Your task to perform on an android device: turn on location history Image 0: 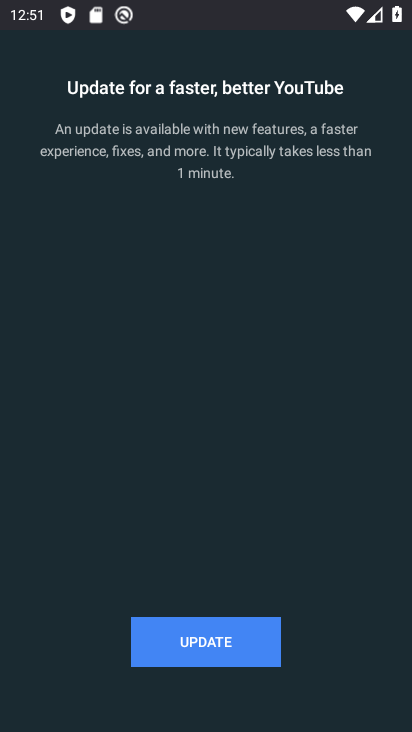
Step 0: press home button
Your task to perform on an android device: turn on location history Image 1: 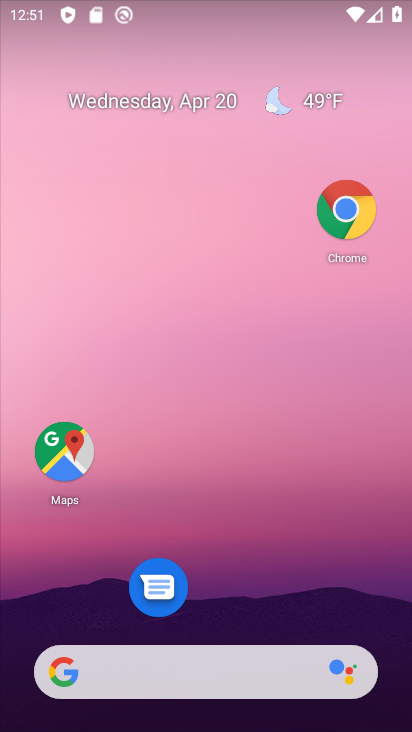
Step 1: drag from (224, 473) to (307, 0)
Your task to perform on an android device: turn on location history Image 2: 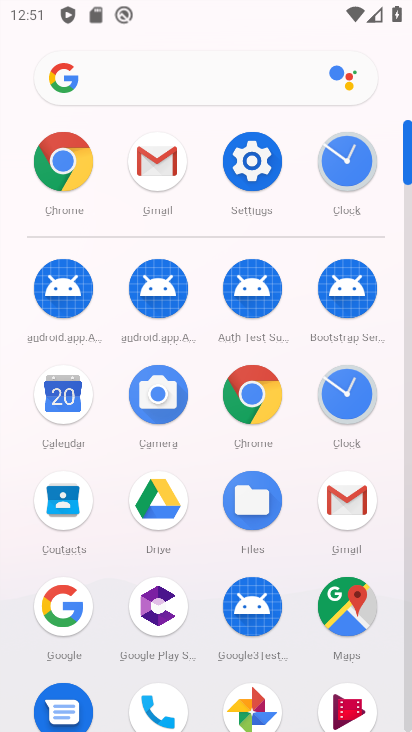
Step 2: click (264, 170)
Your task to perform on an android device: turn on location history Image 3: 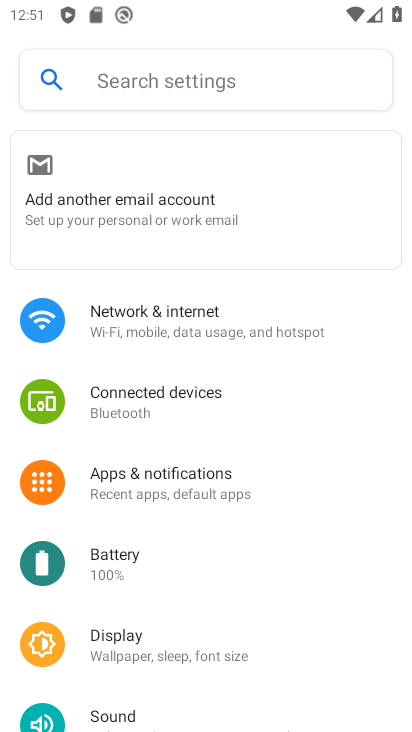
Step 3: drag from (167, 657) to (227, 272)
Your task to perform on an android device: turn on location history Image 4: 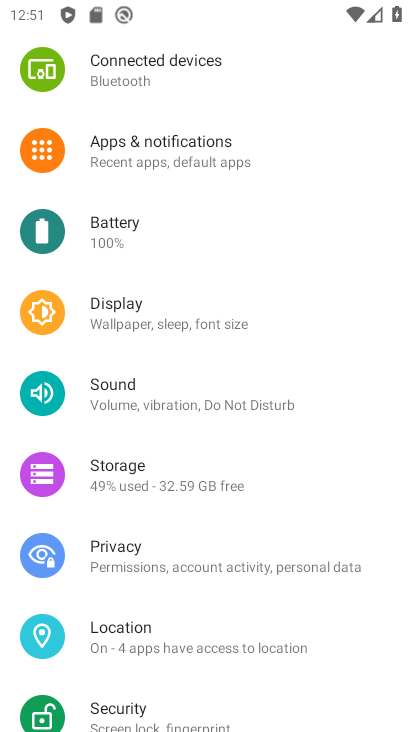
Step 4: click (128, 635)
Your task to perform on an android device: turn on location history Image 5: 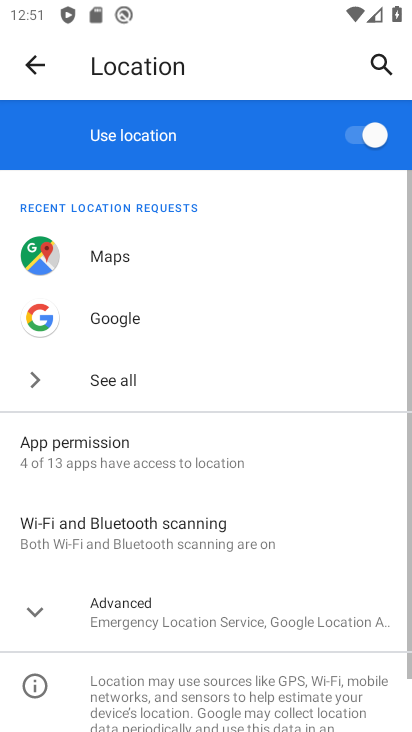
Step 5: click (125, 622)
Your task to perform on an android device: turn on location history Image 6: 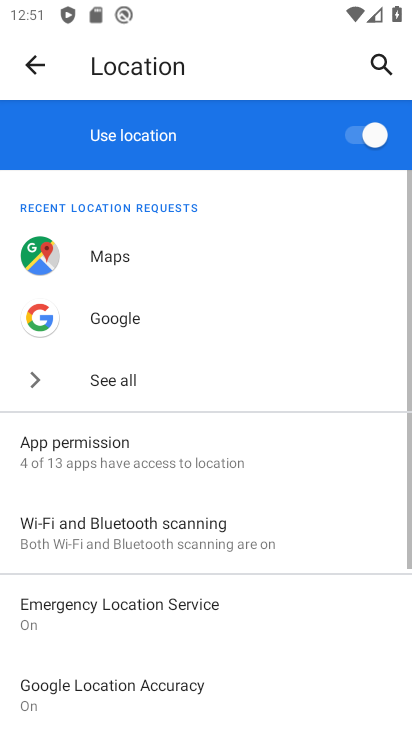
Step 6: drag from (173, 655) to (253, 307)
Your task to perform on an android device: turn on location history Image 7: 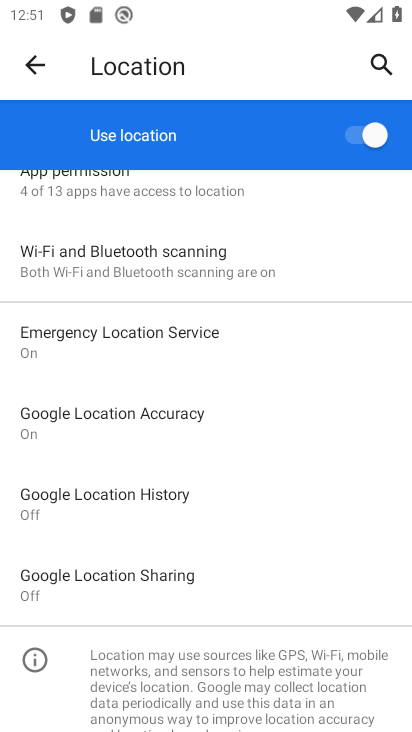
Step 7: click (167, 502)
Your task to perform on an android device: turn on location history Image 8: 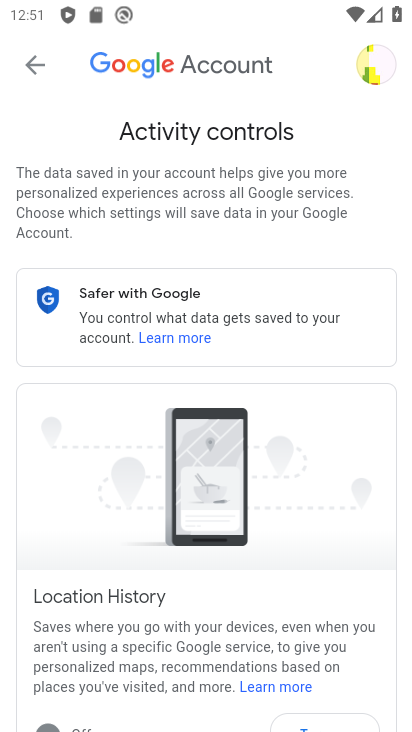
Step 8: drag from (212, 602) to (242, 273)
Your task to perform on an android device: turn on location history Image 9: 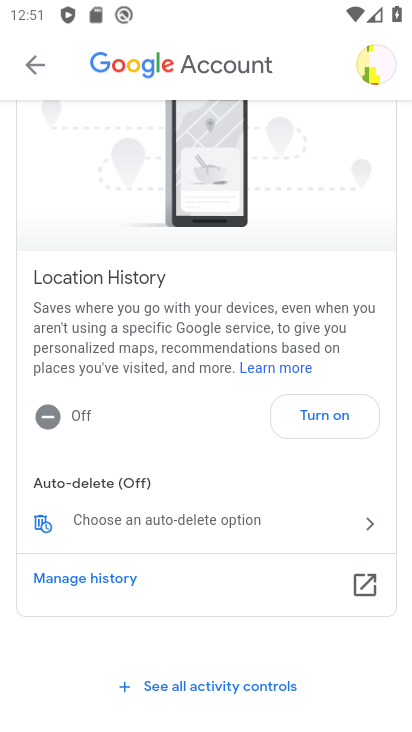
Step 9: click (318, 414)
Your task to perform on an android device: turn on location history Image 10: 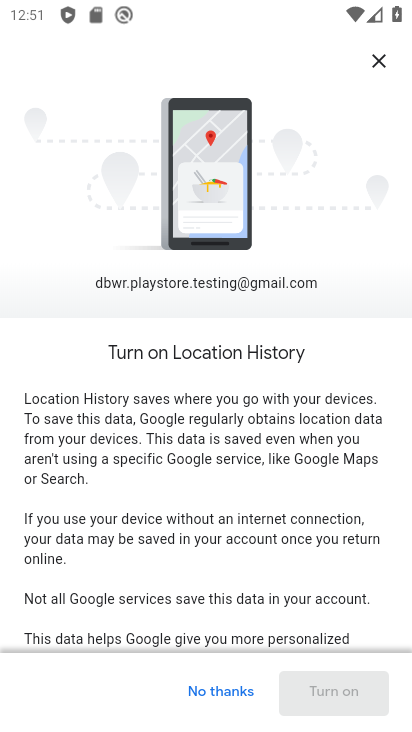
Step 10: drag from (242, 603) to (318, 99)
Your task to perform on an android device: turn on location history Image 11: 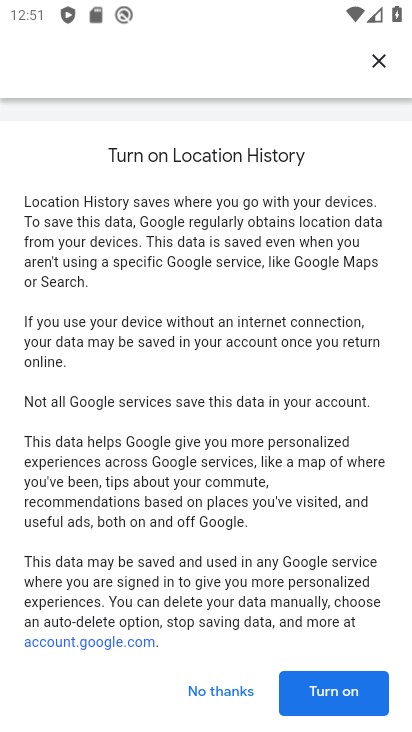
Step 11: drag from (213, 575) to (273, 174)
Your task to perform on an android device: turn on location history Image 12: 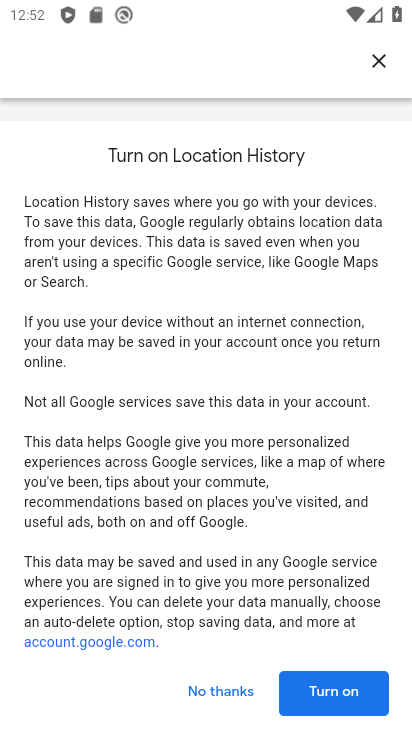
Step 12: click (344, 704)
Your task to perform on an android device: turn on location history Image 13: 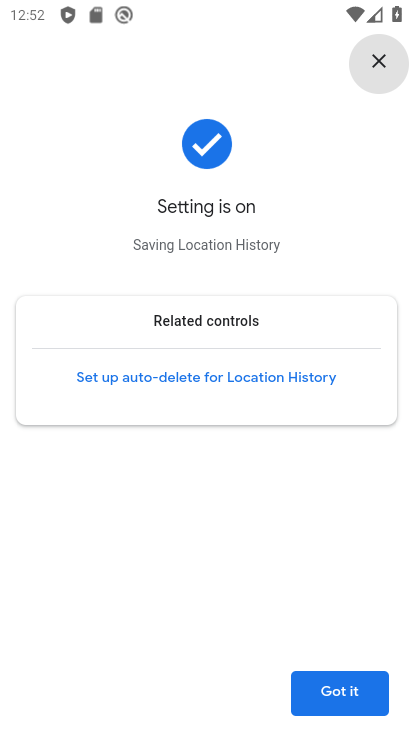
Step 13: click (333, 694)
Your task to perform on an android device: turn on location history Image 14: 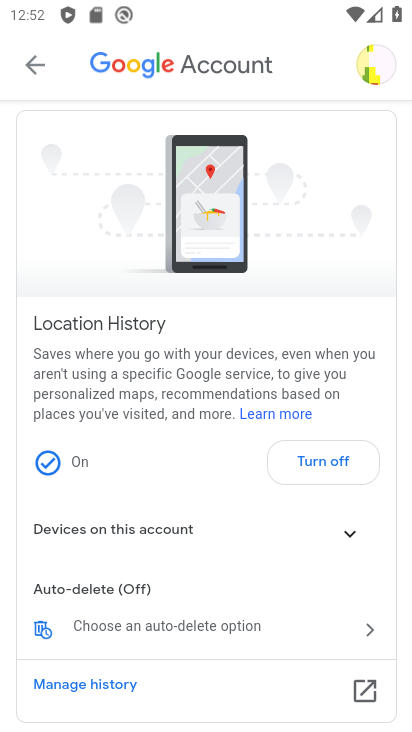
Step 14: task complete